Your task to perform on an android device: Go to battery settings Image 0: 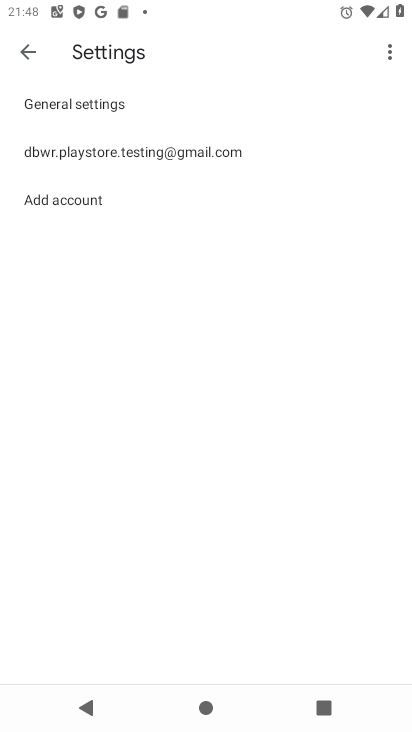
Step 0: press home button
Your task to perform on an android device: Go to battery settings Image 1: 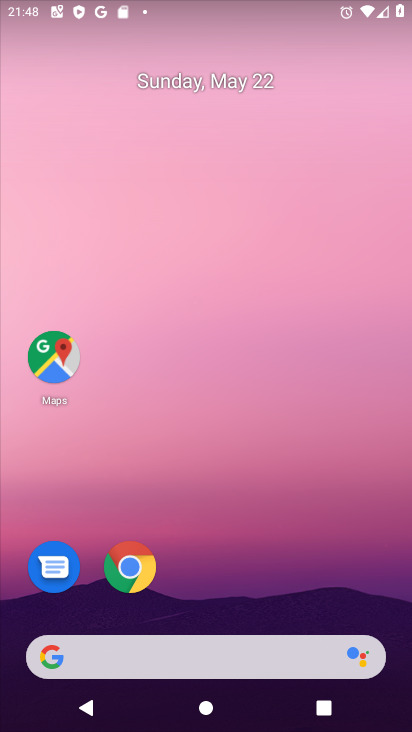
Step 1: drag from (229, 610) to (64, 5)
Your task to perform on an android device: Go to battery settings Image 2: 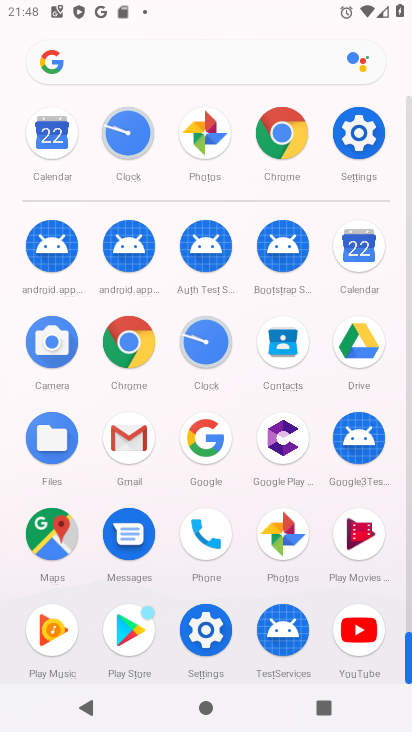
Step 2: click (221, 631)
Your task to perform on an android device: Go to battery settings Image 3: 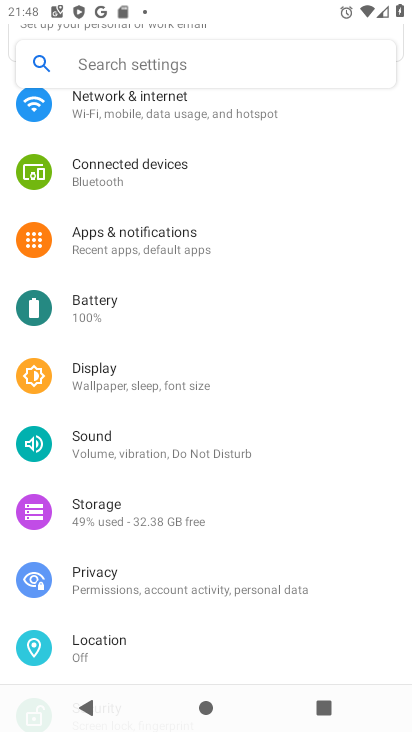
Step 3: click (122, 299)
Your task to perform on an android device: Go to battery settings Image 4: 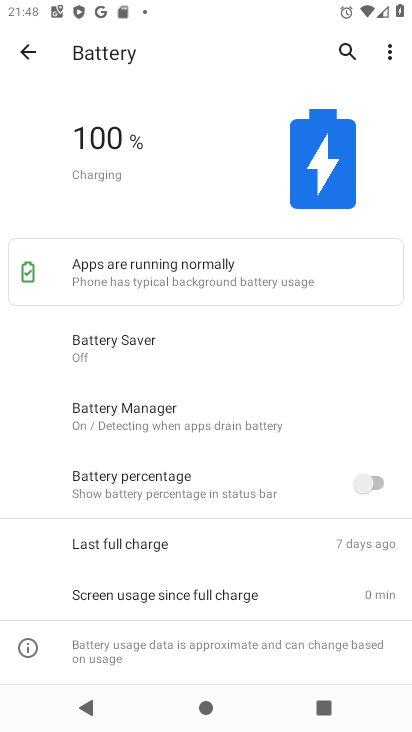
Step 4: task complete